Your task to perform on an android device: see sites visited before in the chrome app Image 0: 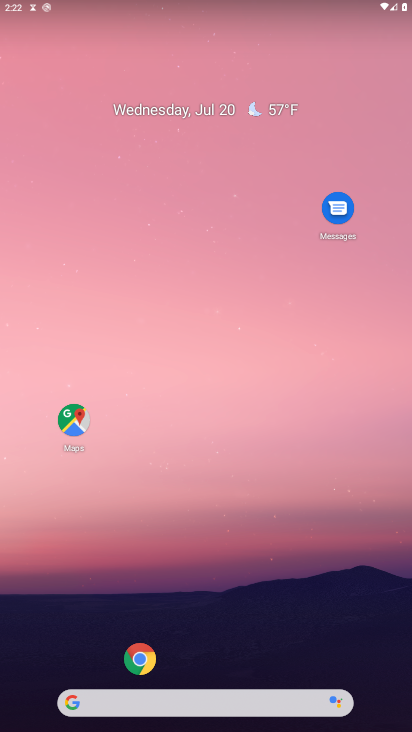
Step 0: click (139, 661)
Your task to perform on an android device: see sites visited before in the chrome app Image 1: 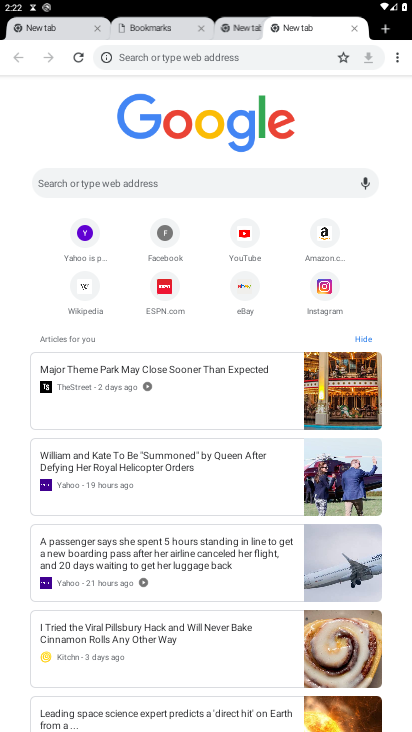
Step 1: click (397, 56)
Your task to perform on an android device: see sites visited before in the chrome app Image 2: 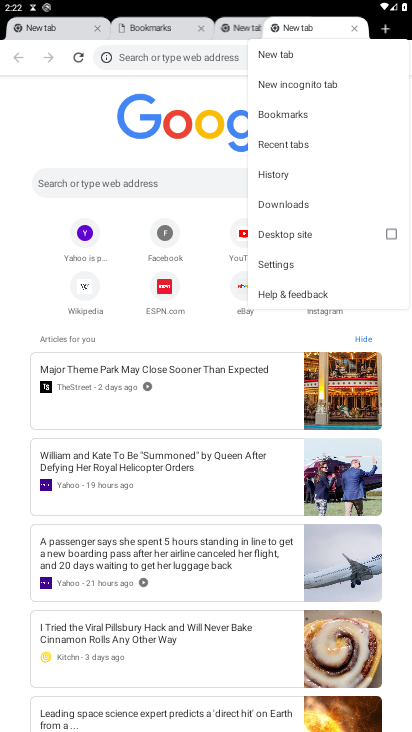
Step 2: click (280, 259)
Your task to perform on an android device: see sites visited before in the chrome app Image 3: 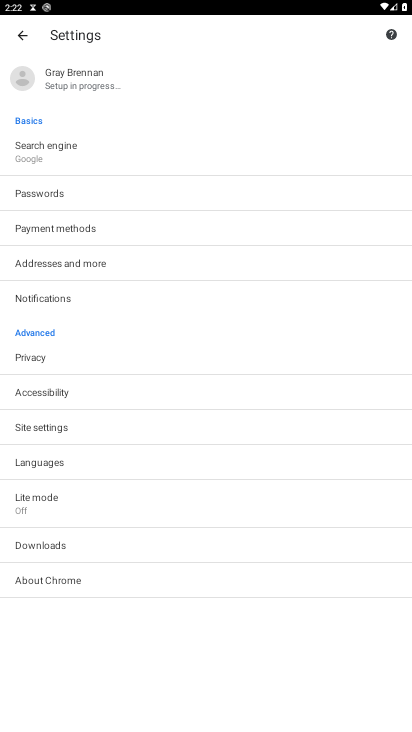
Step 3: click (60, 431)
Your task to perform on an android device: see sites visited before in the chrome app Image 4: 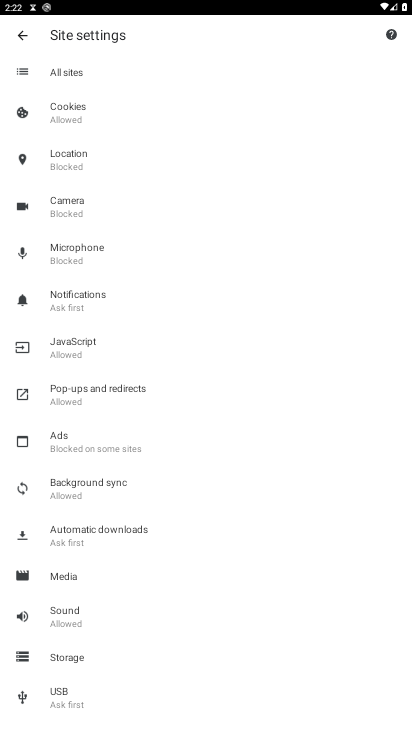
Step 4: task complete